Your task to perform on an android device: set the stopwatch Image 0: 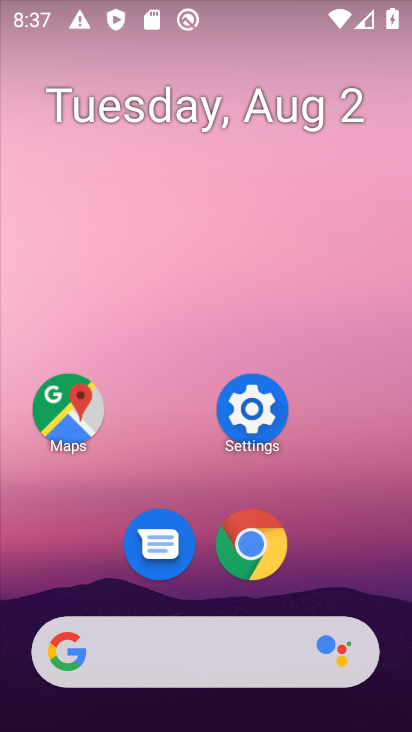
Step 0: press home button
Your task to perform on an android device: set the stopwatch Image 1: 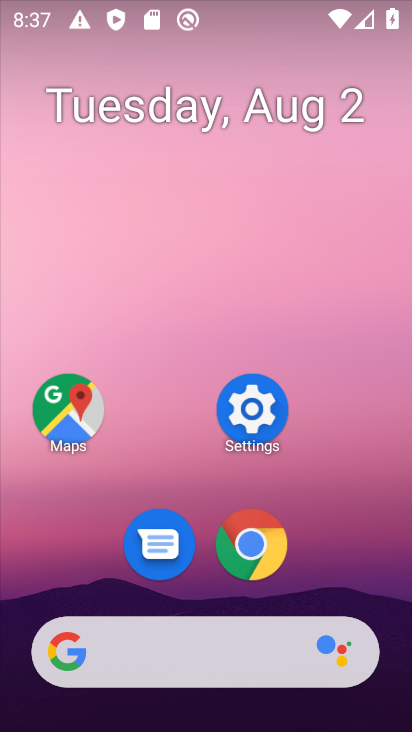
Step 1: drag from (245, 615) to (295, 93)
Your task to perform on an android device: set the stopwatch Image 2: 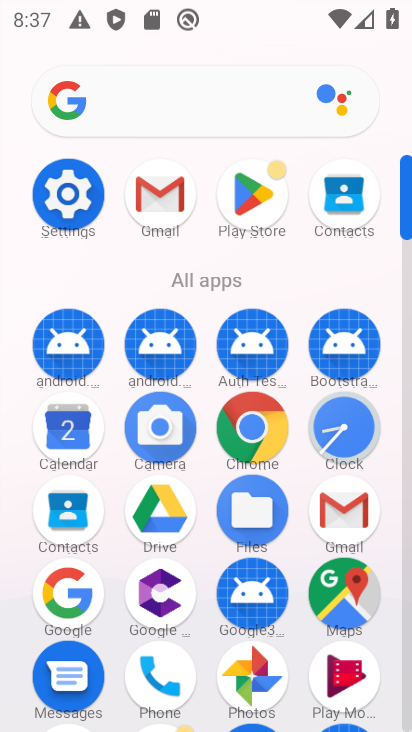
Step 2: click (348, 431)
Your task to perform on an android device: set the stopwatch Image 3: 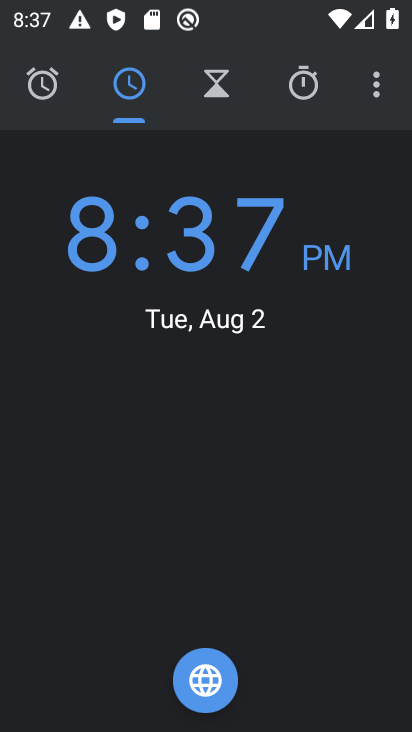
Step 3: click (311, 85)
Your task to perform on an android device: set the stopwatch Image 4: 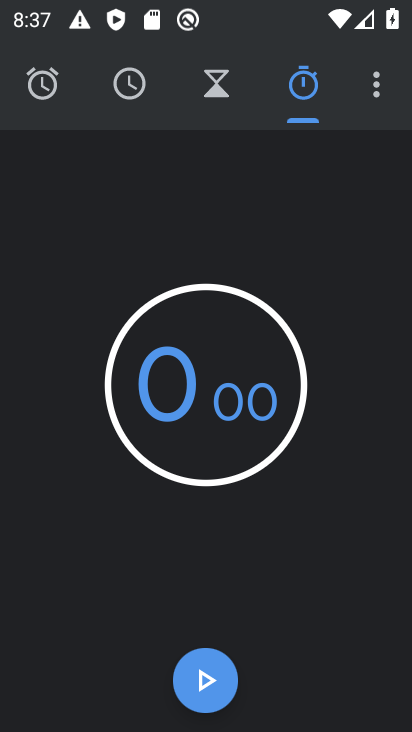
Step 4: click (218, 414)
Your task to perform on an android device: set the stopwatch Image 5: 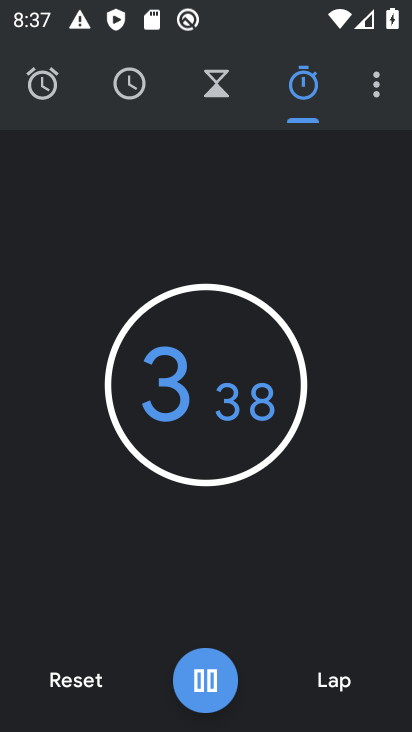
Step 5: click (220, 400)
Your task to perform on an android device: set the stopwatch Image 6: 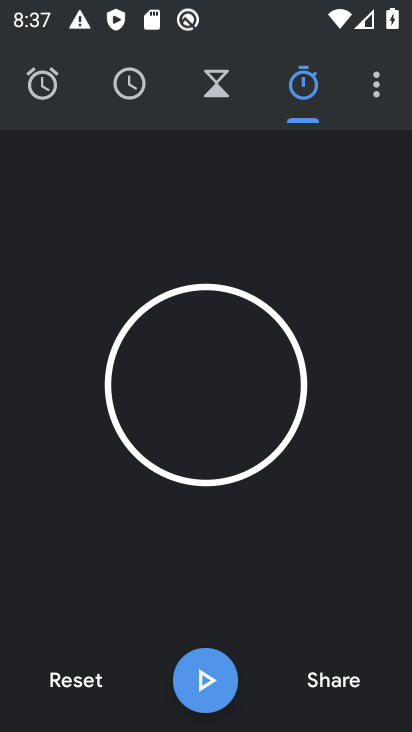
Step 6: task complete